Your task to perform on an android device: Open the stopwatch Image 0: 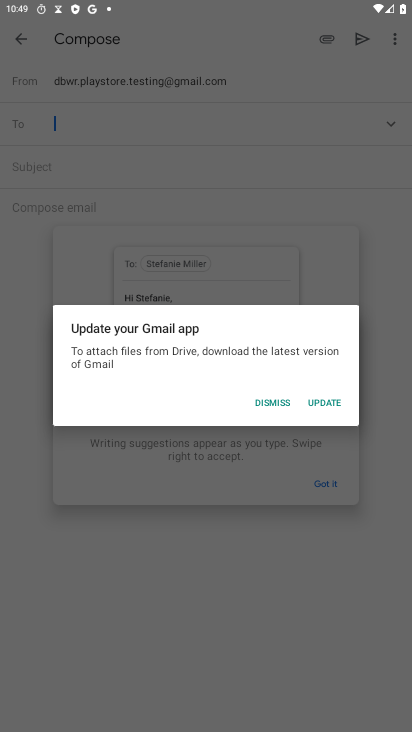
Step 0: press home button
Your task to perform on an android device: Open the stopwatch Image 1: 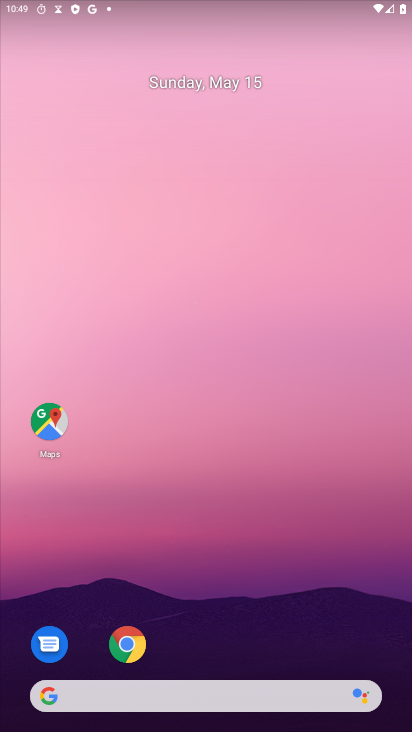
Step 1: drag from (228, 639) to (268, 470)
Your task to perform on an android device: Open the stopwatch Image 2: 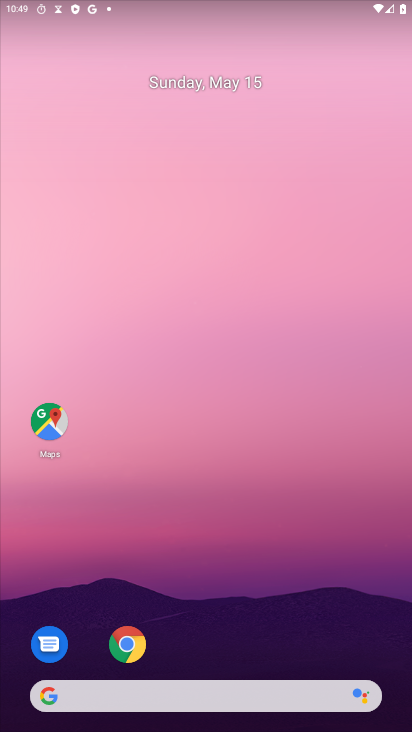
Step 2: drag from (216, 629) to (218, 321)
Your task to perform on an android device: Open the stopwatch Image 3: 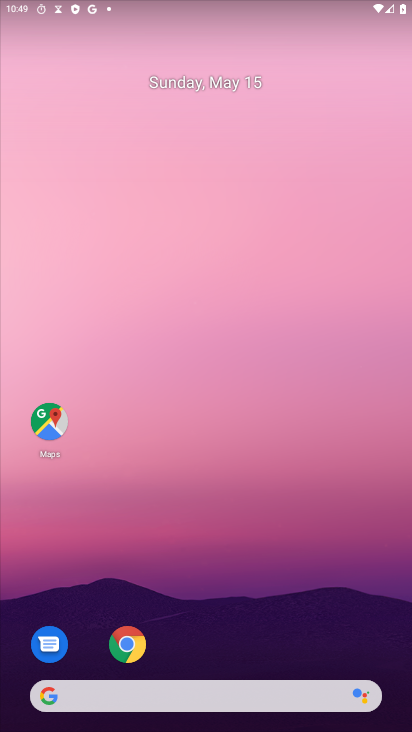
Step 3: drag from (224, 645) to (275, 6)
Your task to perform on an android device: Open the stopwatch Image 4: 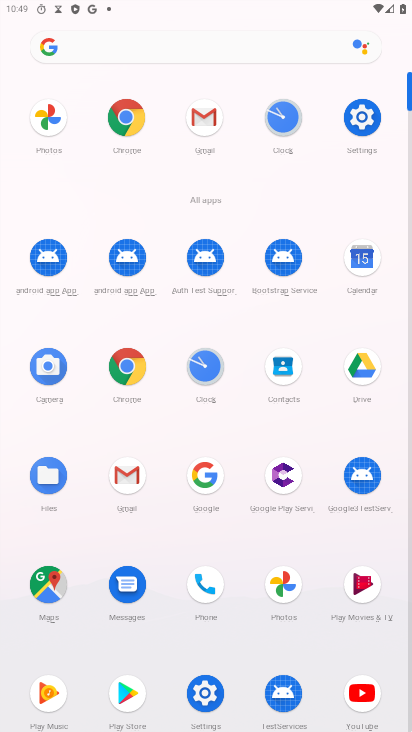
Step 4: click (286, 128)
Your task to perform on an android device: Open the stopwatch Image 5: 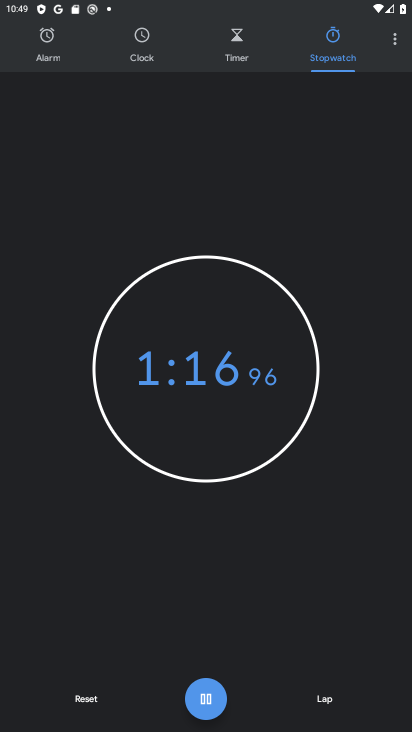
Step 5: task complete